Your task to perform on an android device: turn on bluetooth scan Image 0: 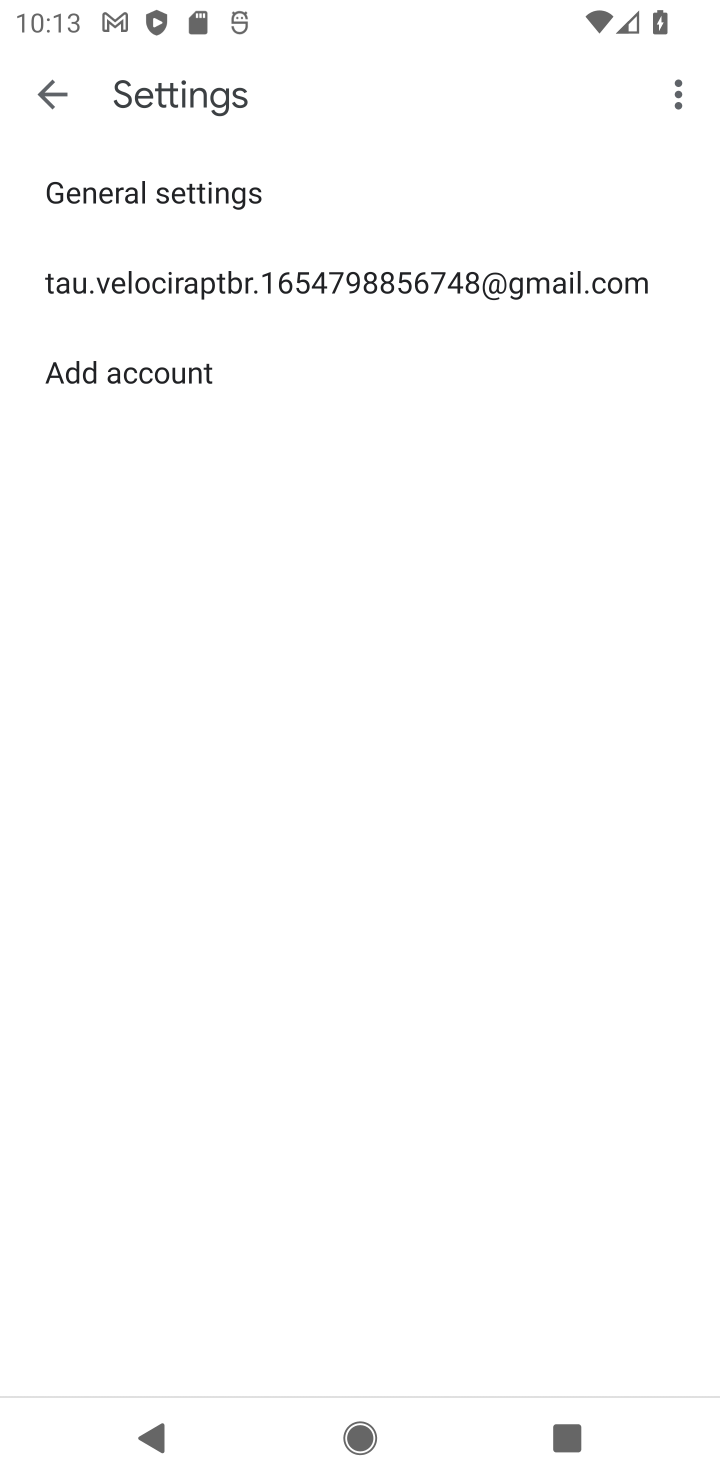
Step 0: press home button
Your task to perform on an android device: turn on bluetooth scan Image 1: 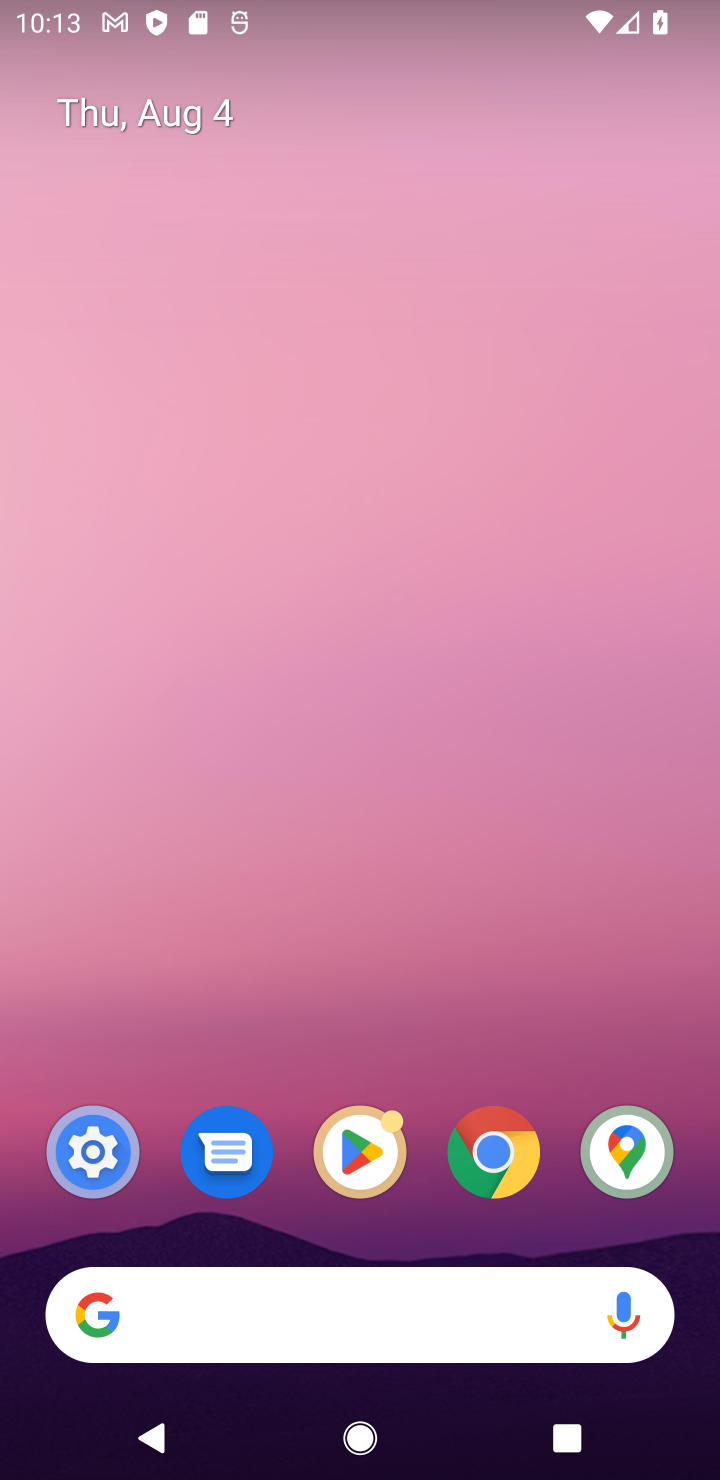
Step 1: click (364, 1155)
Your task to perform on an android device: turn on bluetooth scan Image 2: 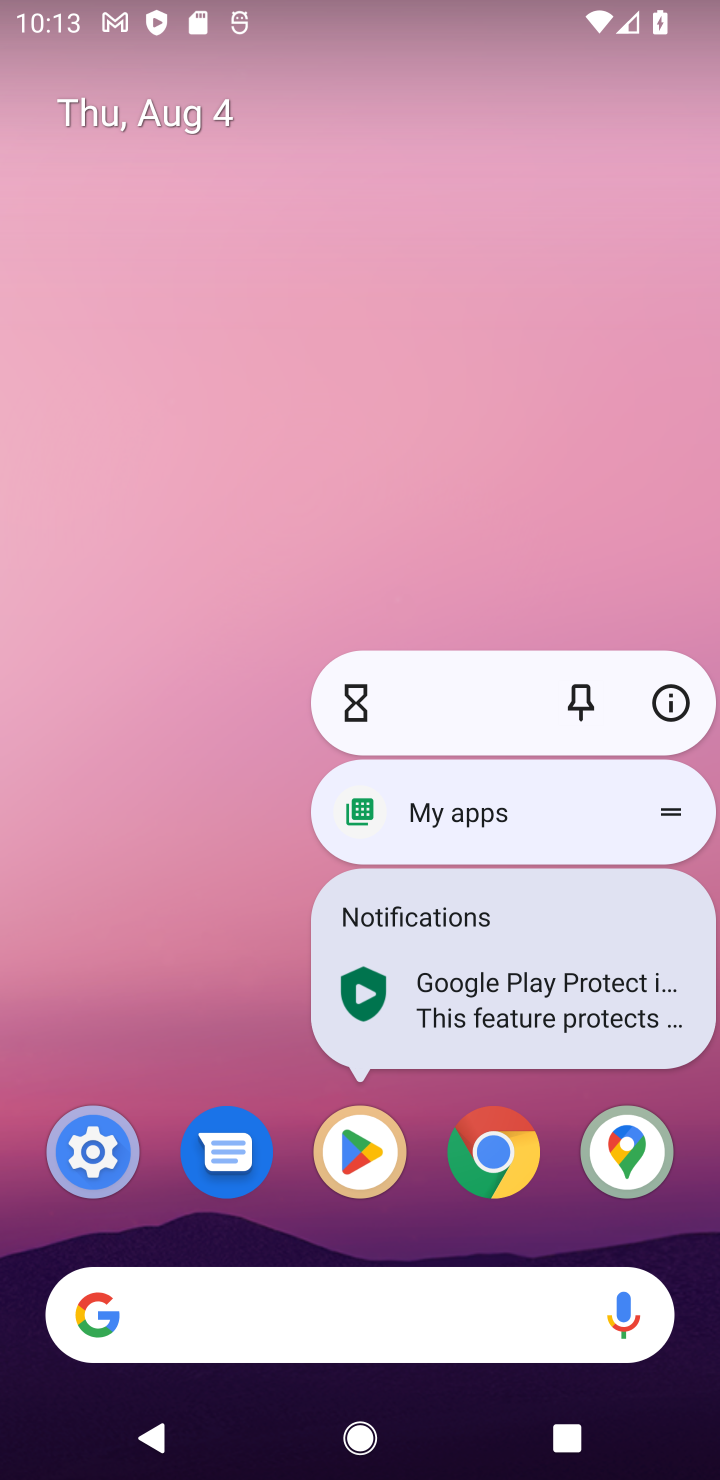
Step 2: drag from (397, 1194) to (422, 461)
Your task to perform on an android device: turn on bluetooth scan Image 3: 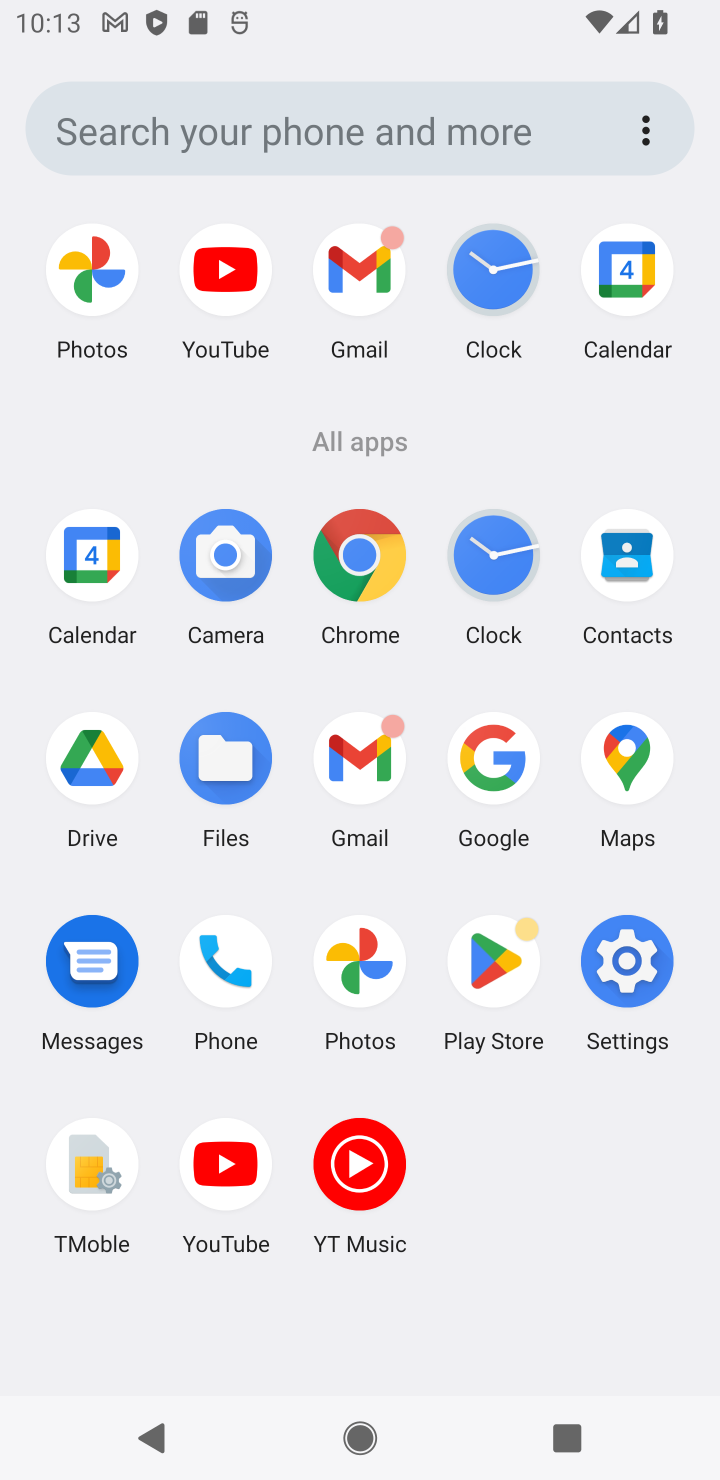
Step 3: click (633, 964)
Your task to perform on an android device: turn on bluetooth scan Image 4: 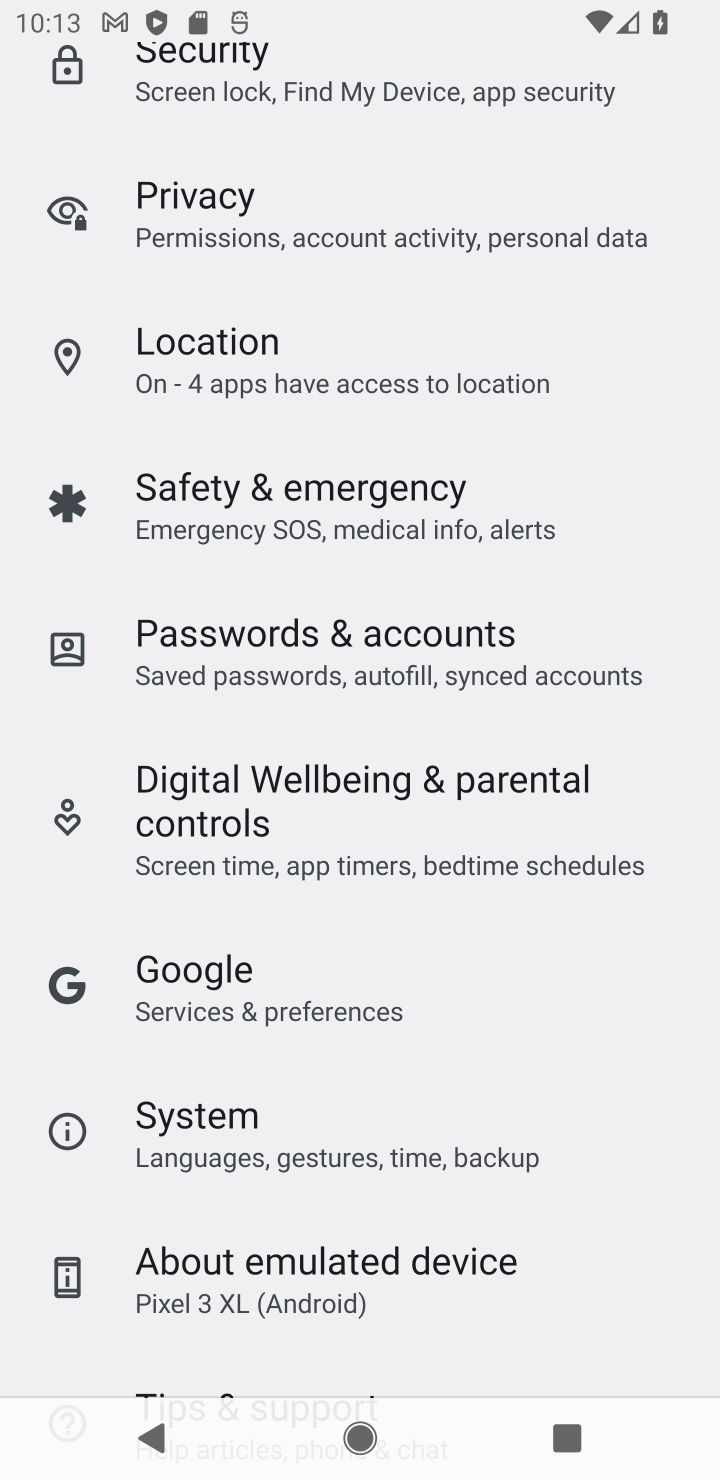
Step 4: click (264, 363)
Your task to perform on an android device: turn on bluetooth scan Image 5: 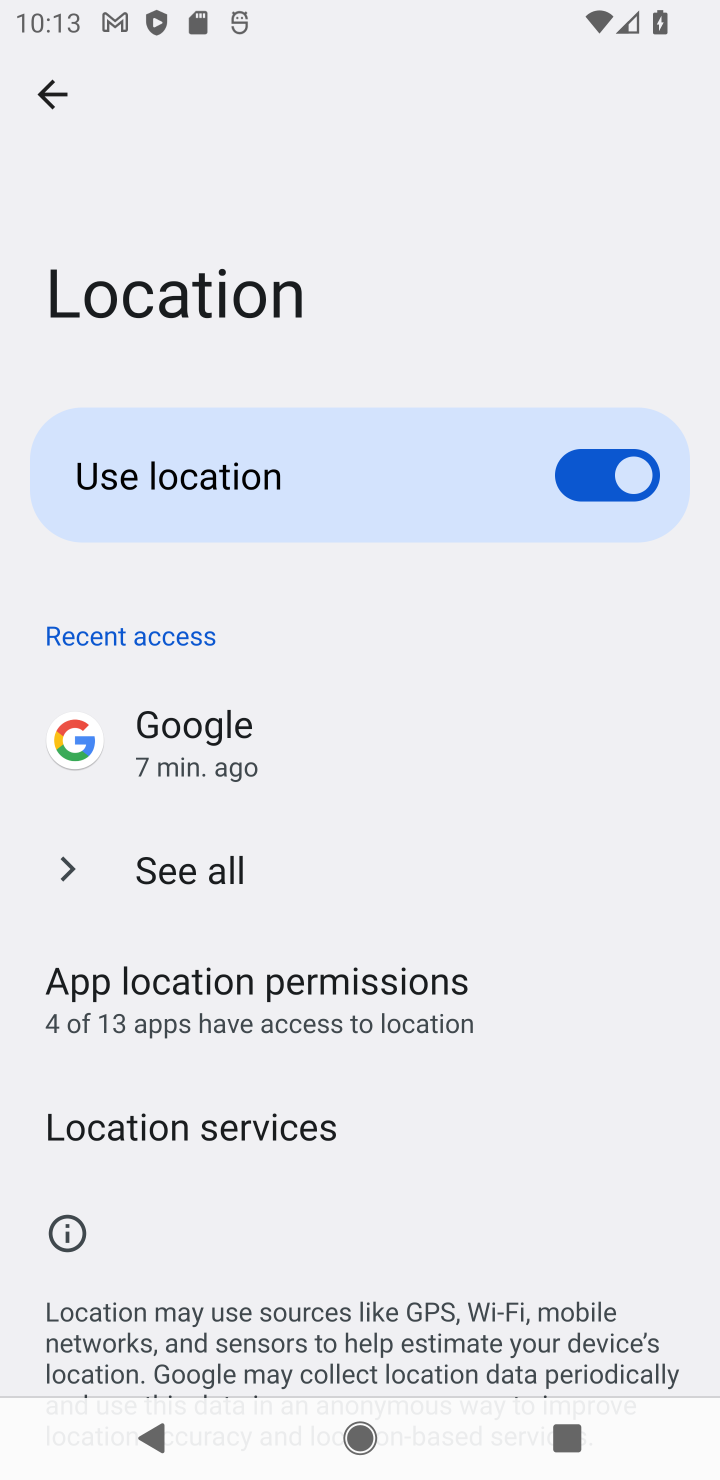
Step 5: click (241, 1131)
Your task to perform on an android device: turn on bluetooth scan Image 6: 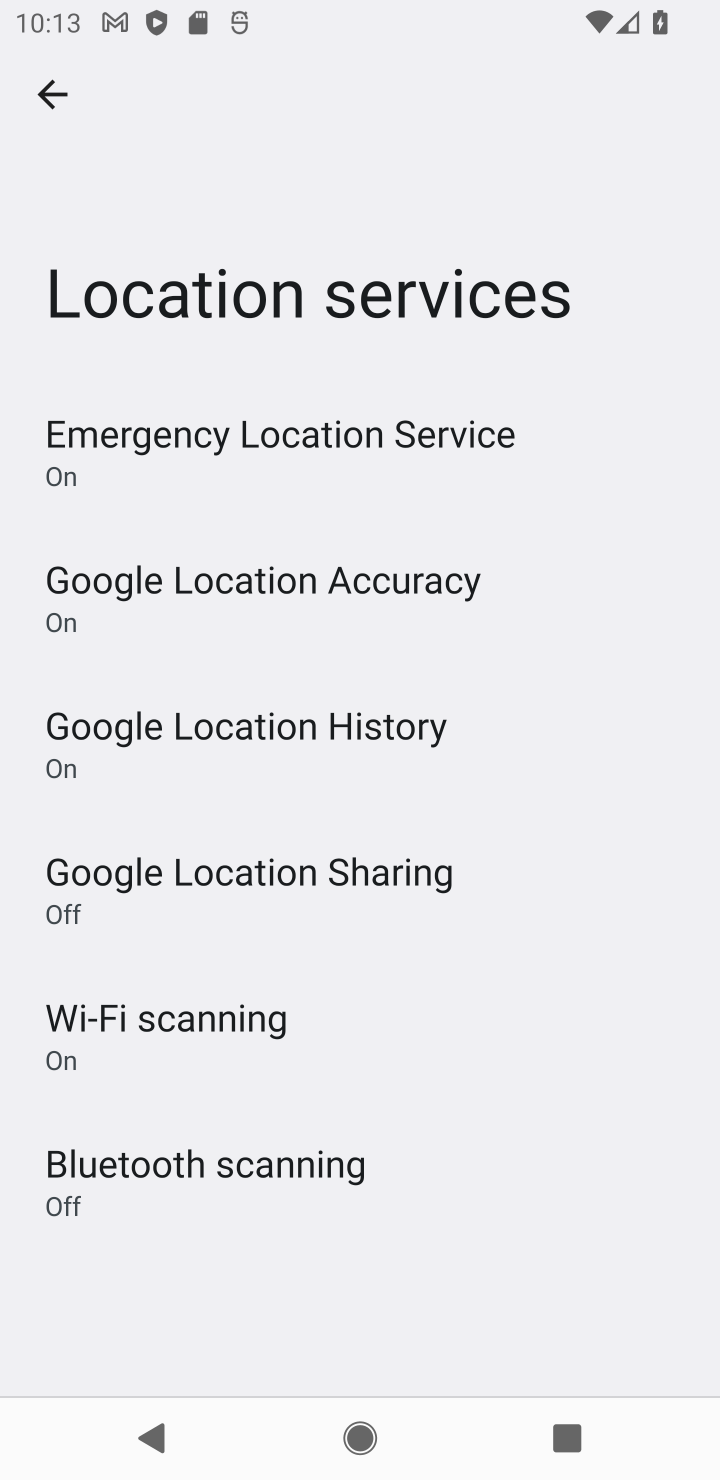
Step 6: click (217, 1178)
Your task to perform on an android device: turn on bluetooth scan Image 7: 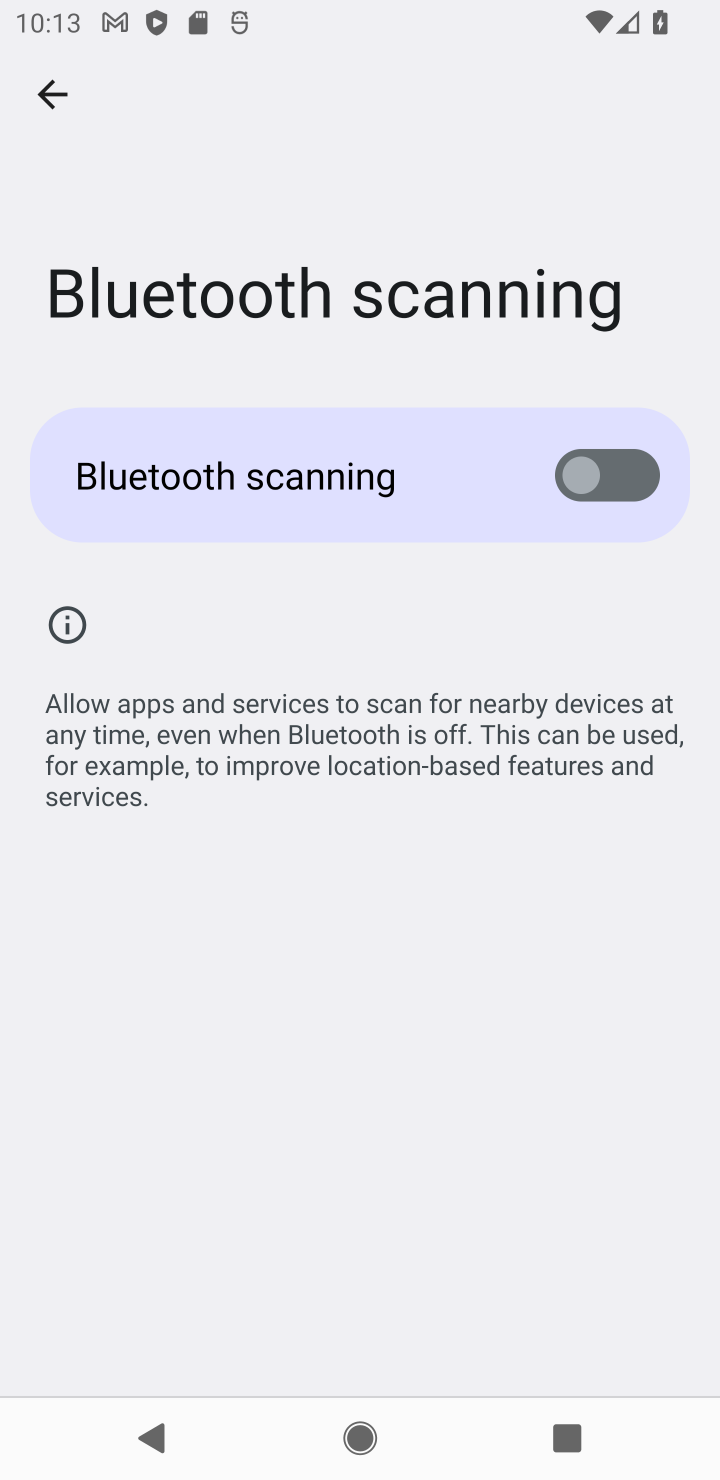
Step 7: click (595, 493)
Your task to perform on an android device: turn on bluetooth scan Image 8: 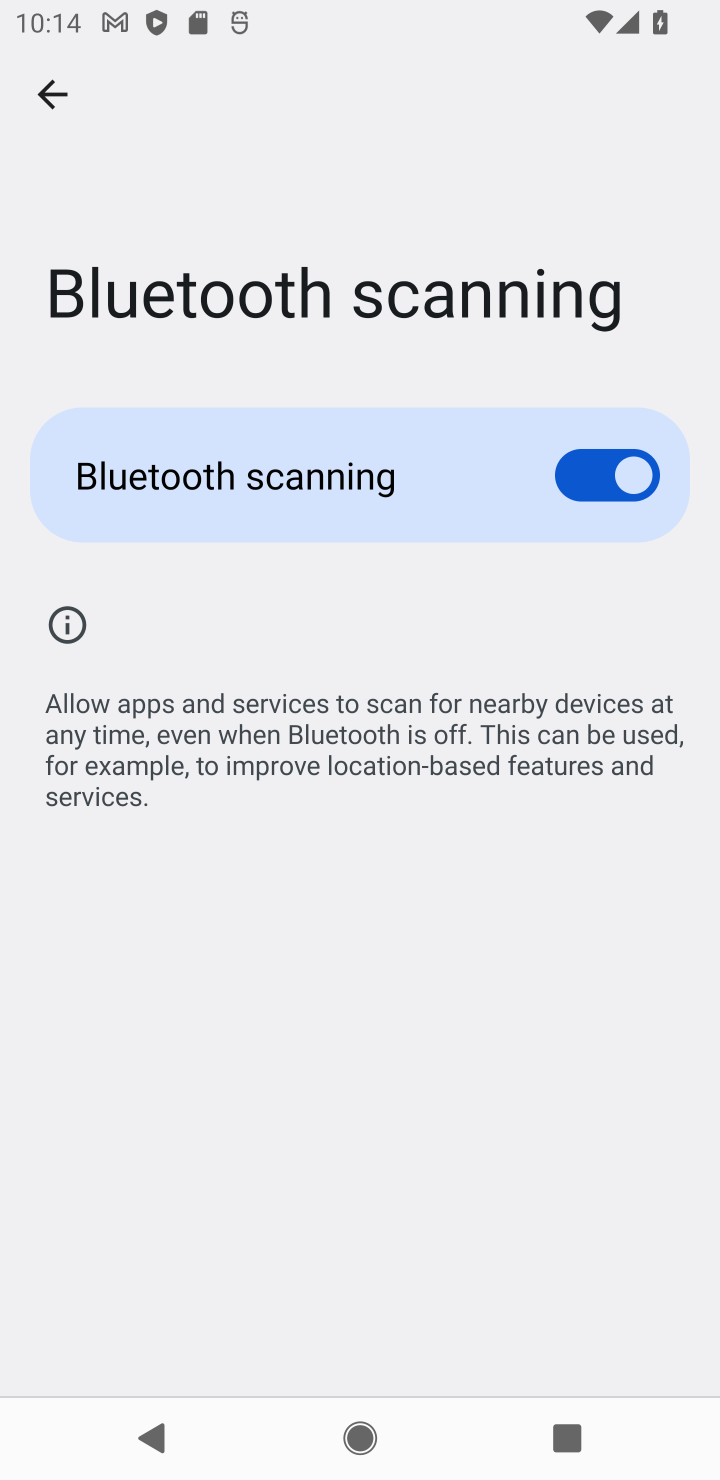
Step 8: task complete